Your task to perform on an android device: open device folders in google photos Image 0: 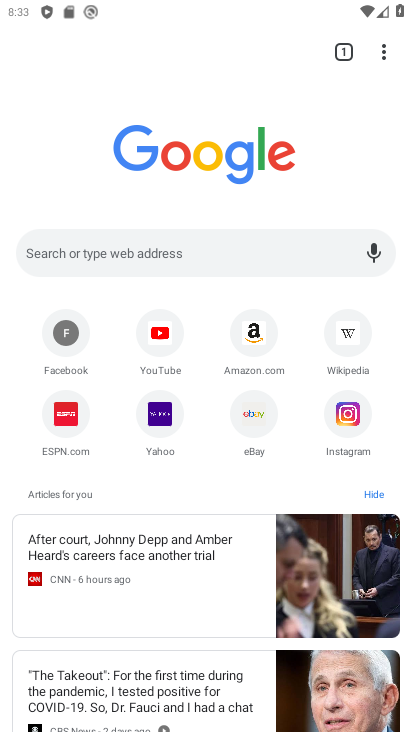
Step 0: press home button
Your task to perform on an android device: open device folders in google photos Image 1: 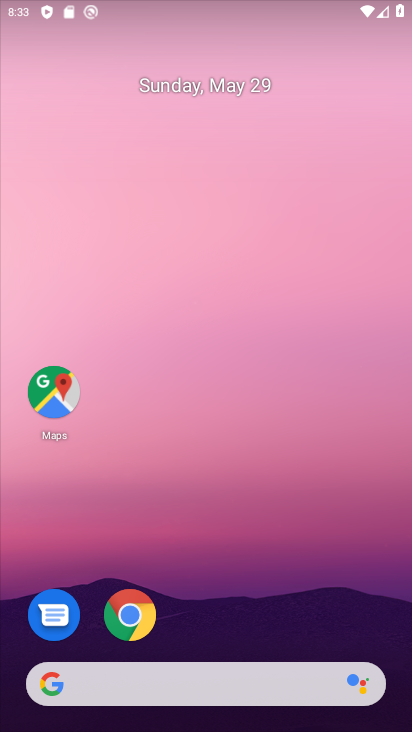
Step 1: drag from (232, 596) to (335, 4)
Your task to perform on an android device: open device folders in google photos Image 2: 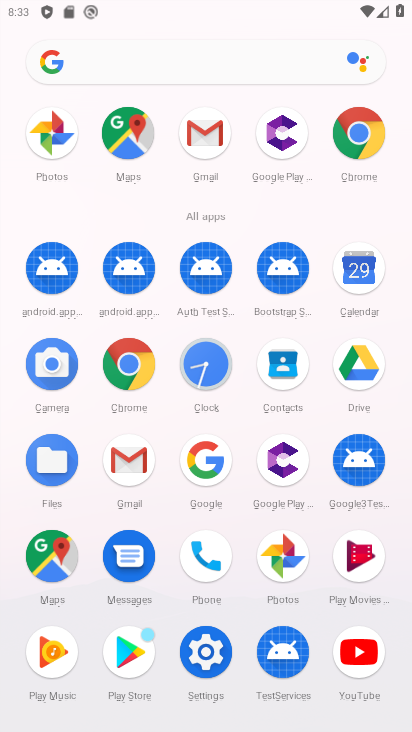
Step 2: click (42, 130)
Your task to perform on an android device: open device folders in google photos Image 3: 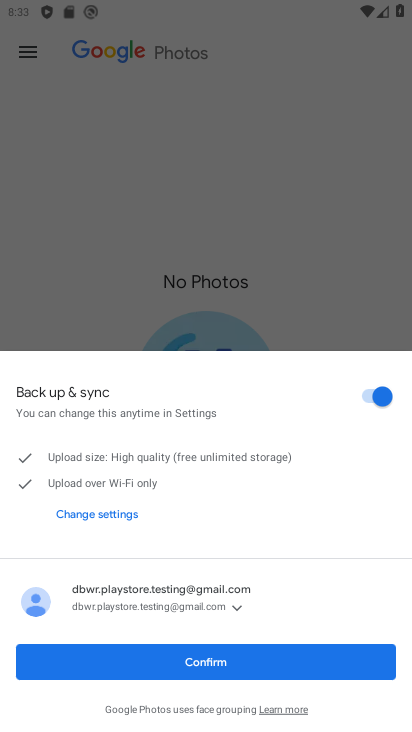
Step 3: click (185, 648)
Your task to perform on an android device: open device folders in google photos Image 4: 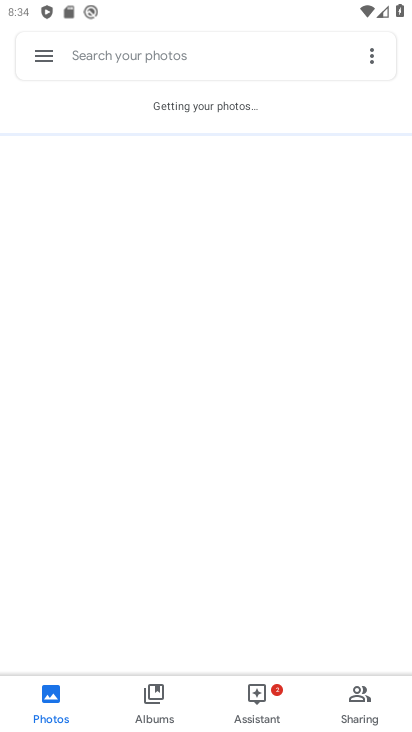
Step 4: click (48, 61)
Your task to perform on an android device: open device folders in google photos Image 5: 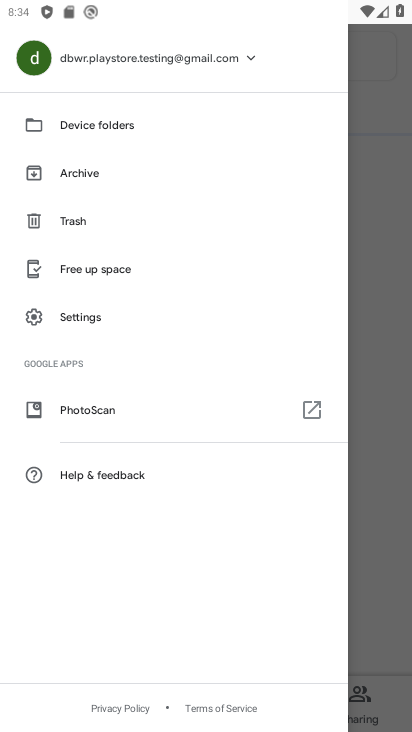
Step 5: click (98, 131)
Your task to perform on an android device: open device folders in google photos Image 6: 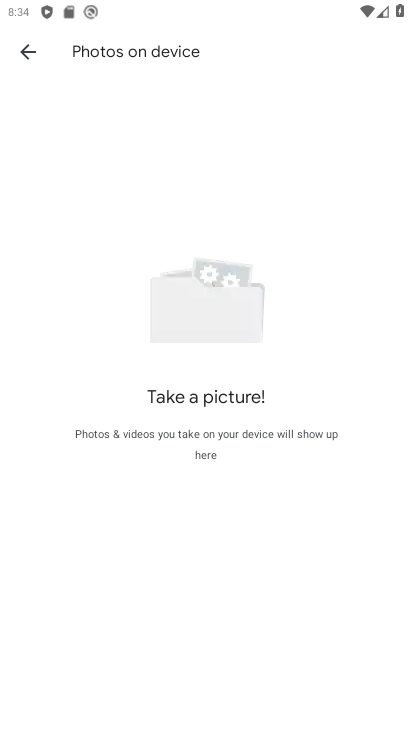
Step 6: task complete